Your task to perform on an android device: change notification settings in the gmail app Image 0: 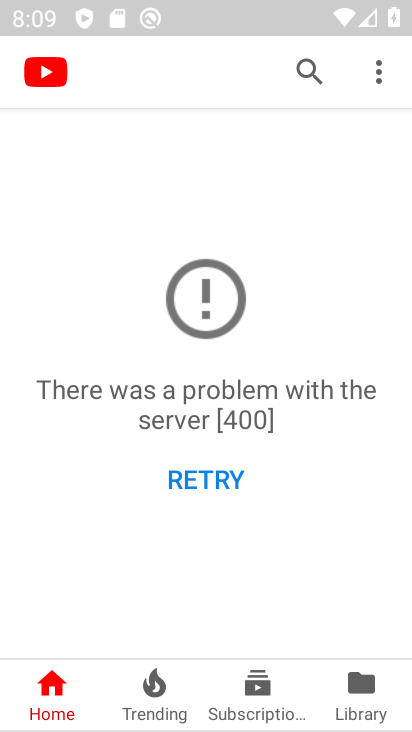
Step 0: press home button
Your task to perform on an android device: change notification settings in the gmail app Image 1: 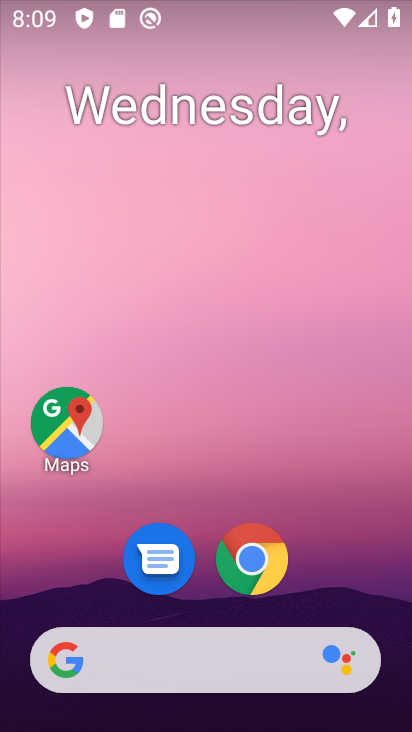
Step 1: drag from (181, 596) to (243, 100)
Your task to perform on an android device: change notification settings in the gmail app Image 2: 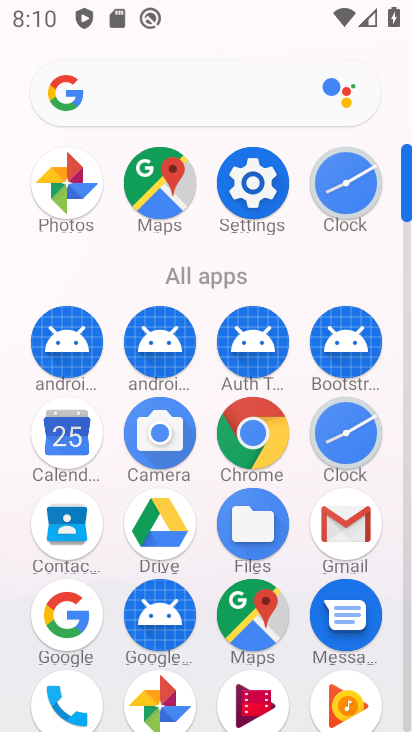
Step 2: click (341, 543)
Your task to perform on an android device: change notification settings in the gmail app Image 3: 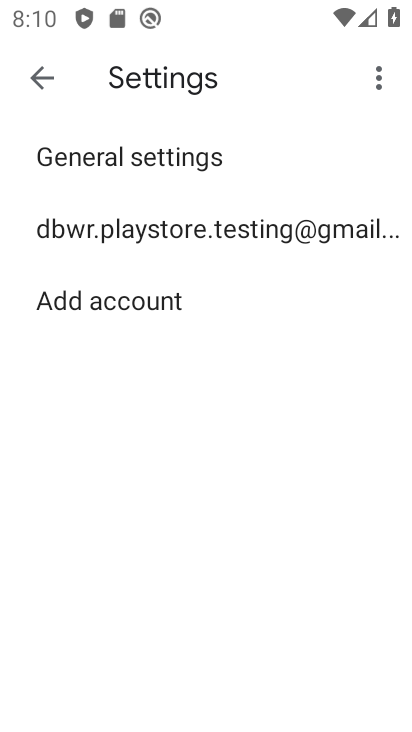
Step 3: click (157, 148)
Your task to perform on an android device: change notification settings in the gmail app Image 4: 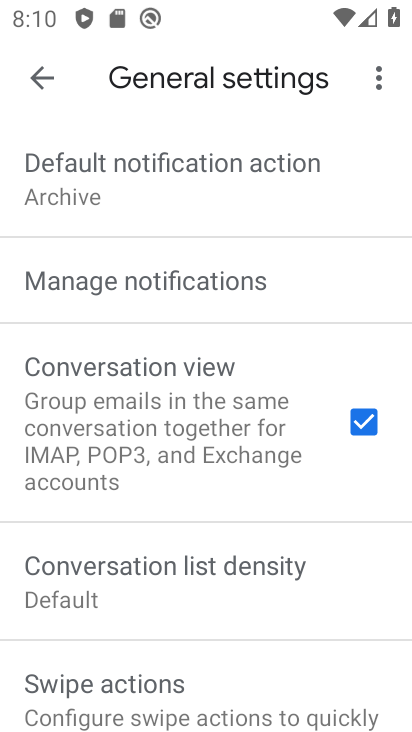
Step 4: click (212, 277)
Your task to perform on an android device: change notification settings in the gmail app Image 5: 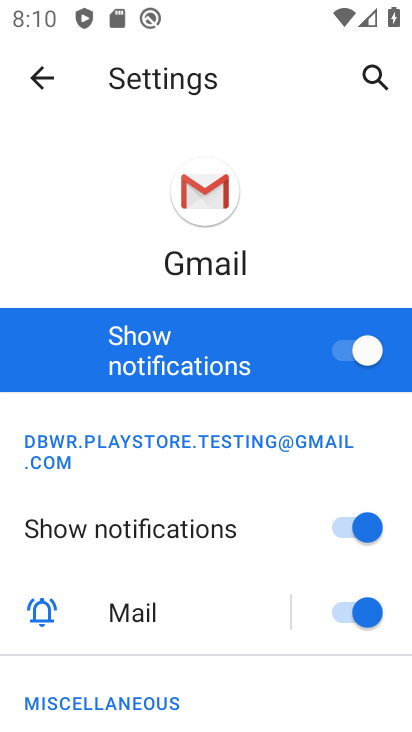
Step 5: click (234, 336)
Your task to perform on an android device: change notification settings in the gmail app Image 6: 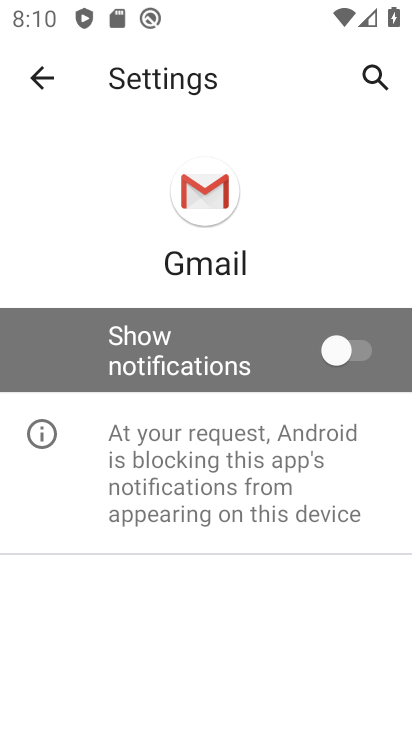
Step 6: task complete